Your task to perform on an android device: Open privacy settings Image 0: 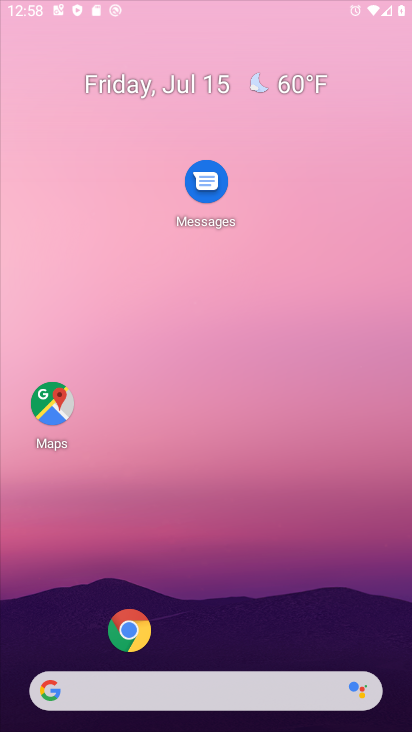
Step 0: click (140, 693)
Your task to perform on an android device: Open privacy settings Image 1: 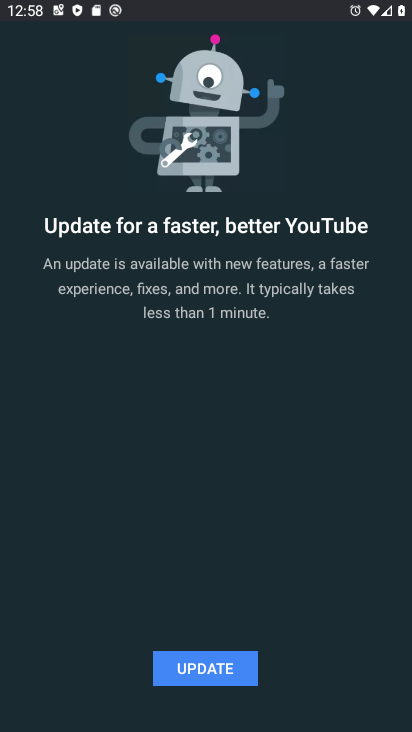
Step 1: press home button
Your task to perform on an android device: Open privacy settings Image 2: 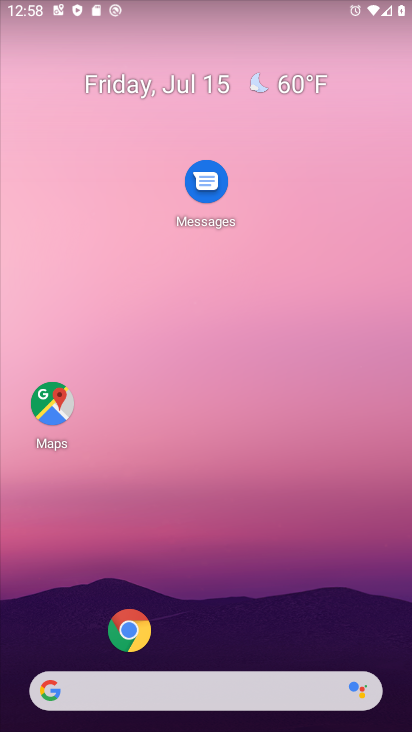
Step 2: drag from (23, 707) to (173, 125)
Your task to perform on an android device: Open privacy settings Image 3: 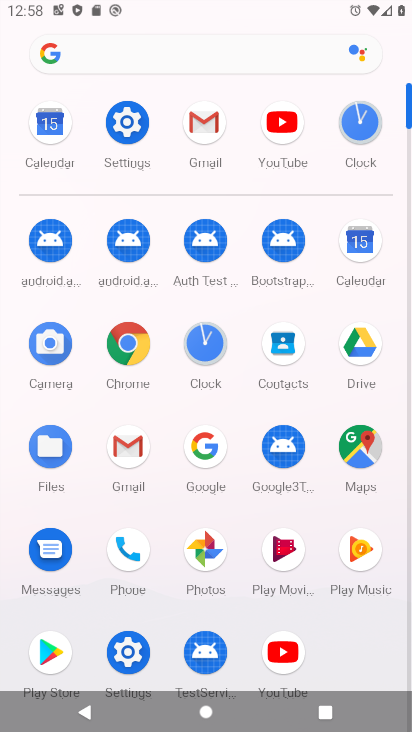
Step 3: click (144, 662)
Your task to perform on an android device: Open privacy settings Image 4: 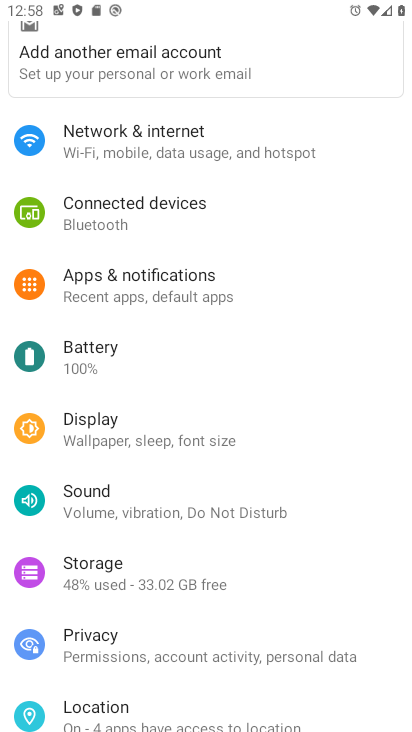
Step 4: click (110, 635)
Your task to perform on an android device: Open privacy settings Image 5: 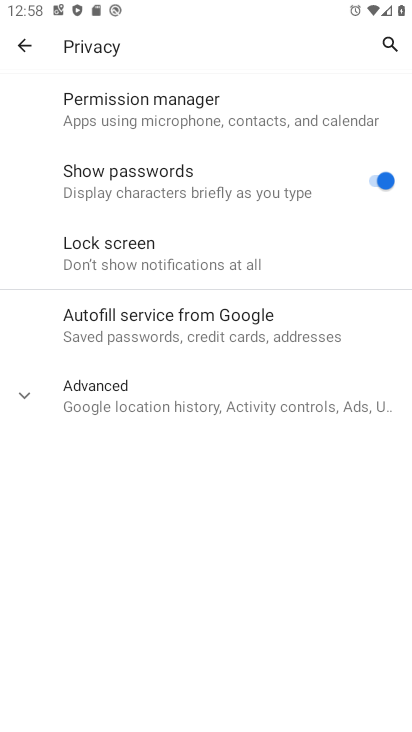
Step 5: task complete